Your task to perform on an android device: toggle pop-ups in chrome Image 0: 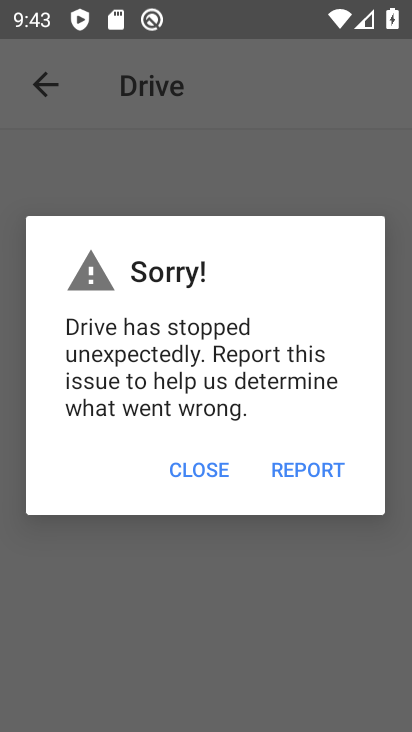
Step 0: press home button
Your task to perform on an android device: toggle pop-ups in chrome Image 1: 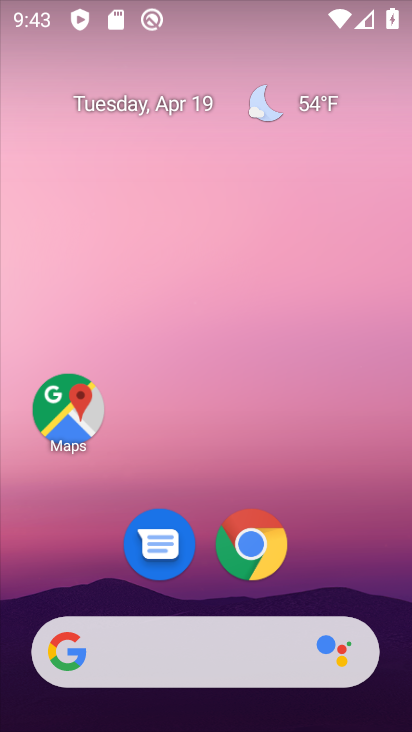
Step 1: click (239, 553)
Your task to perform on an android device: toggle pop-ups in chrome Image 2: 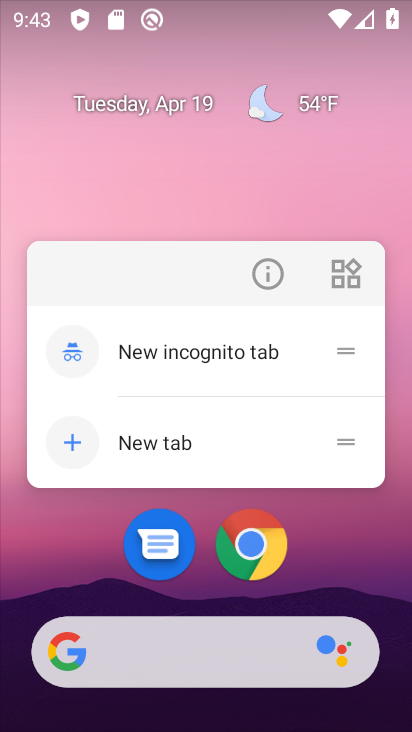
Step 2: click (257, 548)
Your task to perform on an android device: toggle pop-ups in chrome Image 3: 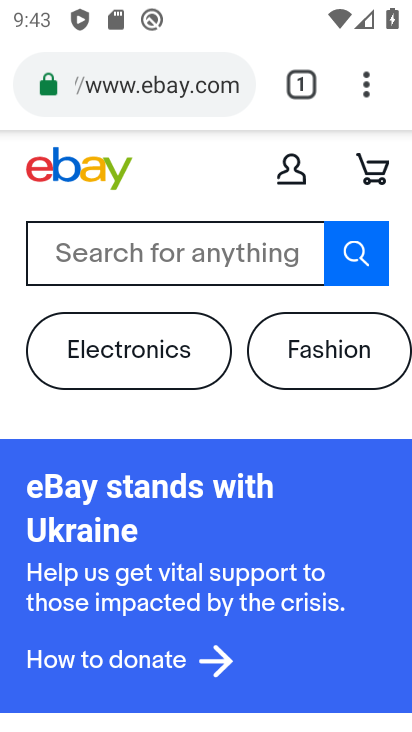
Step 3: drag from (363, 90) to (199, 602)
Your task to perform on an android device: toggle pop-ups in chrome Image 4: 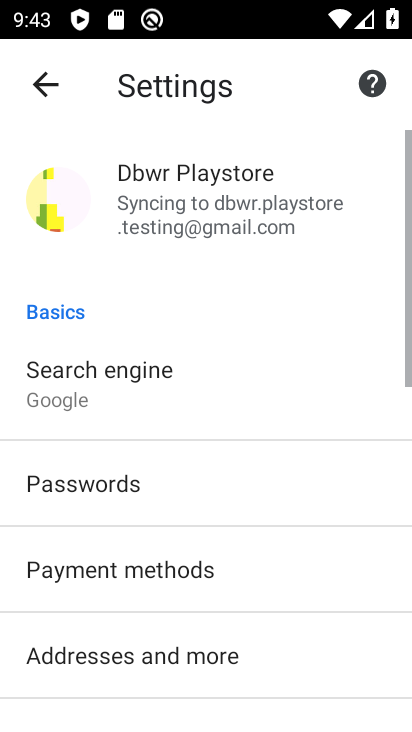
Step 4: drag from (245, 646) to (243, 353)
Your task to perform on an android device: toggle pop-ups in chrome Image 5: 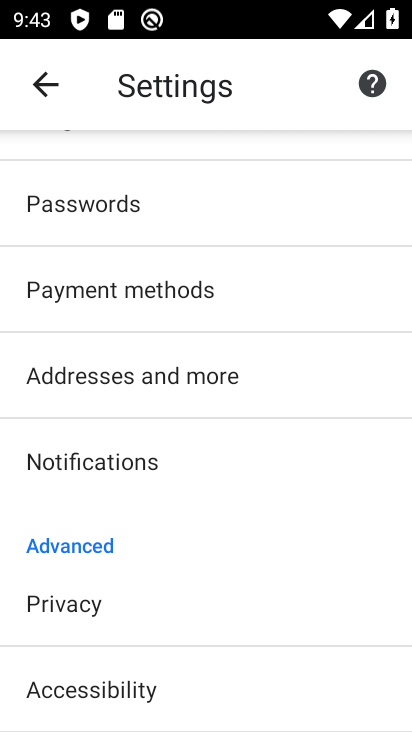
Step 5: drag from (167, 664) to (172, 312)
Your task to perform on an android device: toggle pop-ups in chrome Image 6: 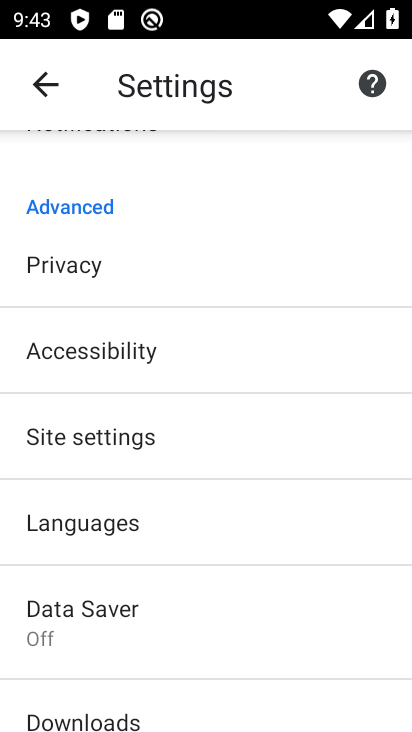
Step 6: drag from (163, 652) to (159, 522)
Your task to perform on an android device: toggle pop-ups in chrome Image 7: 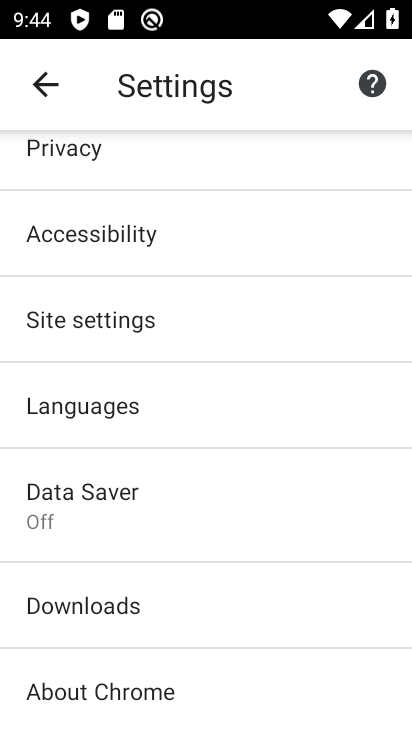
Step 7: click (131, 338)
Your task to perform on an android device: toggle pop-ups in chrome Image 8: 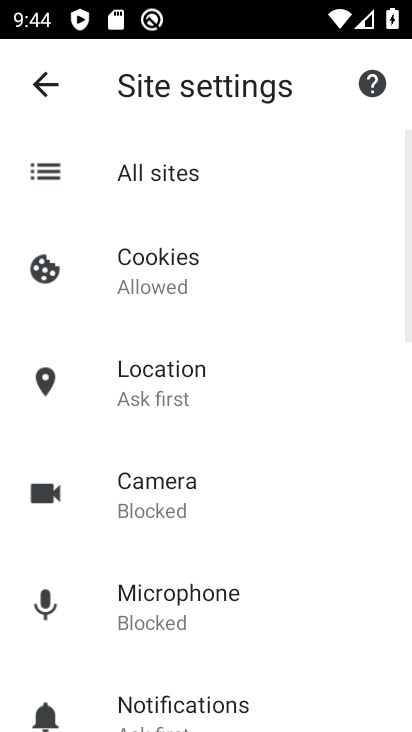
Step 8: drag from (245, 645) to (273, 275)
Your task to perform on an android device: toggle pop-ups in chrome Image 9: 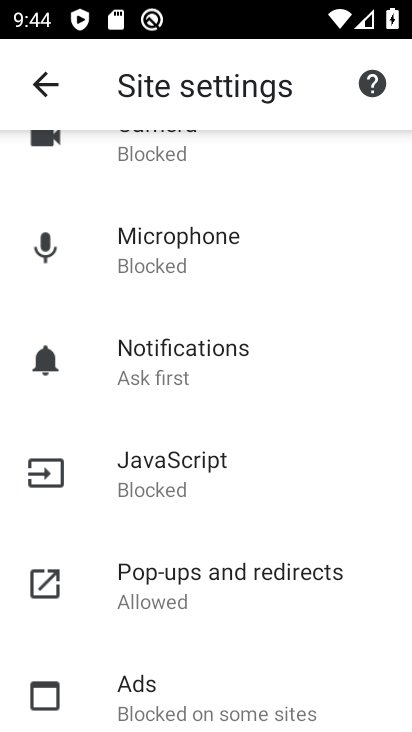
Step 9: click (229, 593)
Your task to perform on an android device: toggle pop-ups in chrome Image 10: 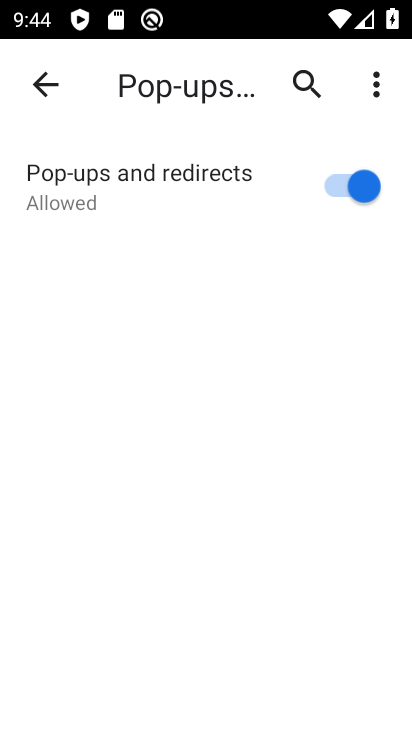
Step 10: click (349, 191)
Your task to perform on an android device: toggle pop-ups in chrome Image 11: 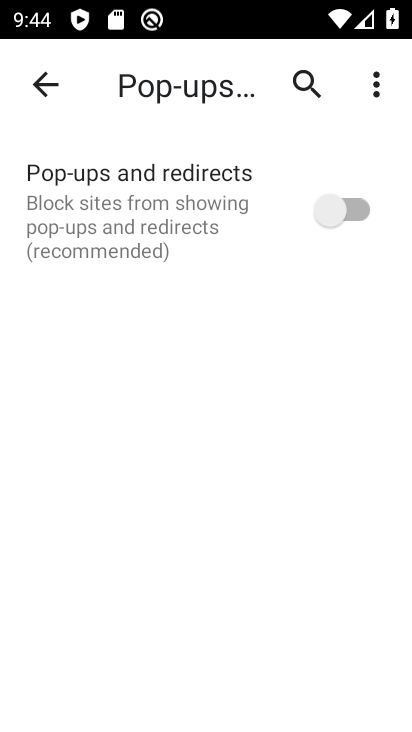
Step 11: task complete